Your task to perform on an android device: change the clock style Image 0: 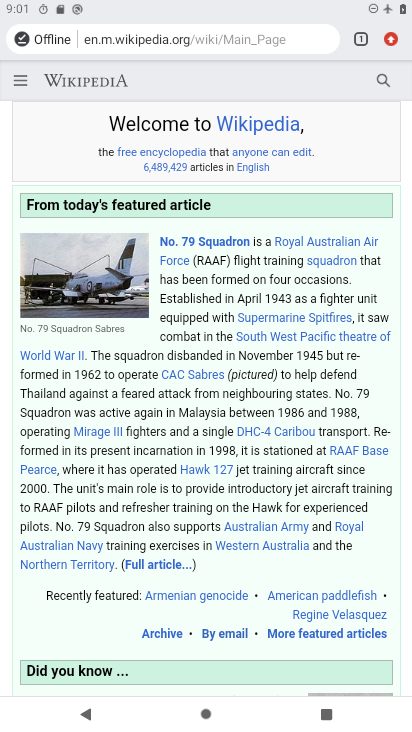
Step 0: press home button
Your task to perform on an android device: change the clock style Image 1: 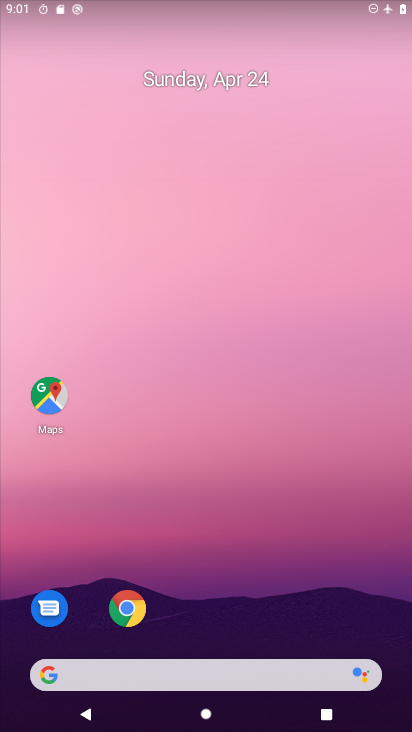
Step 1: drag from (318, 551) to (330, 11)
Your task to perform on an android device: change the clock style Image 2: 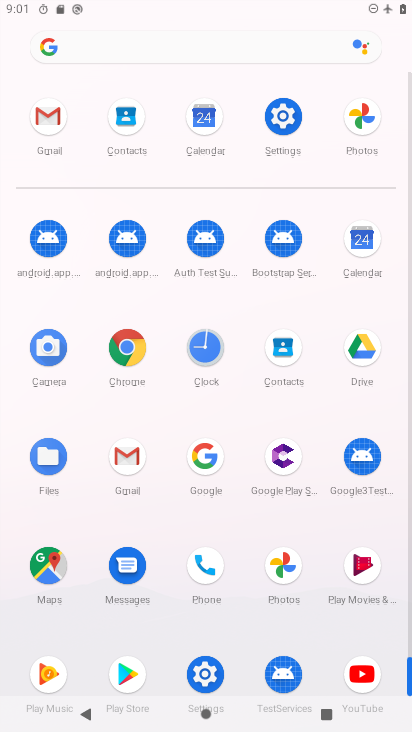
Step 2: click (202, 344)
Your task to perform on an android device: change the clock style Image 3: 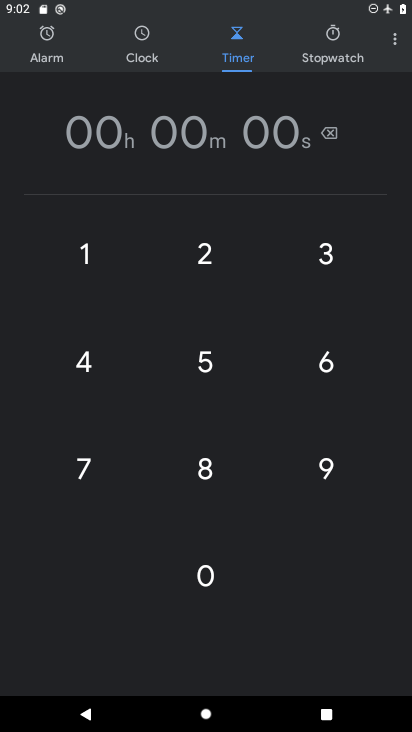
Step 3: click (396, 42)
Your task to perform on an android device: change the clock style Image 4: 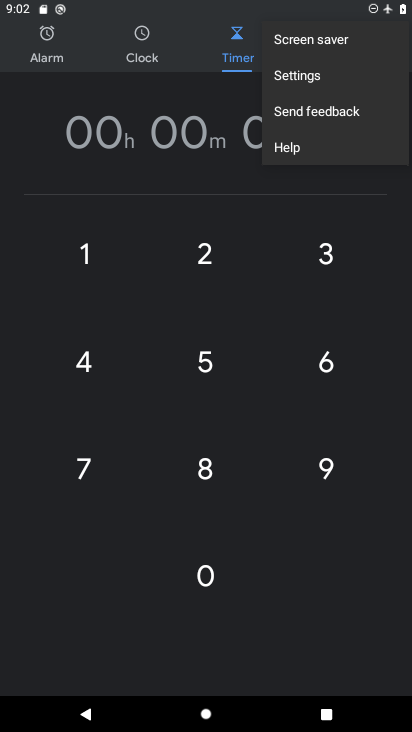
Step 4: click (344, 74)
Your task to perform on an android device: change the clock style Image 5: 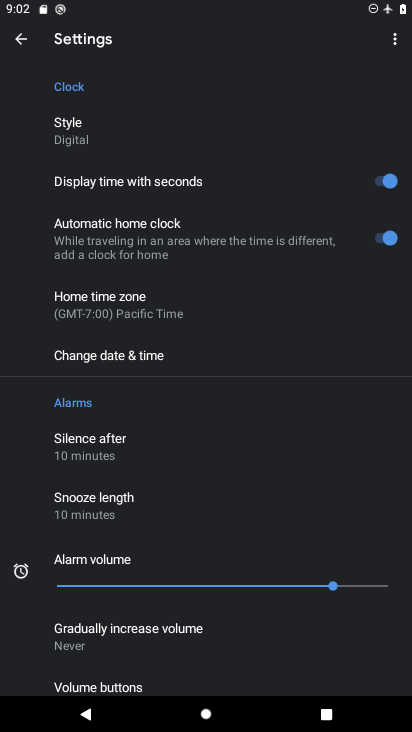
Step 5: click (229, 132)
Your task to perform on an android device: change the clock style Image 6: 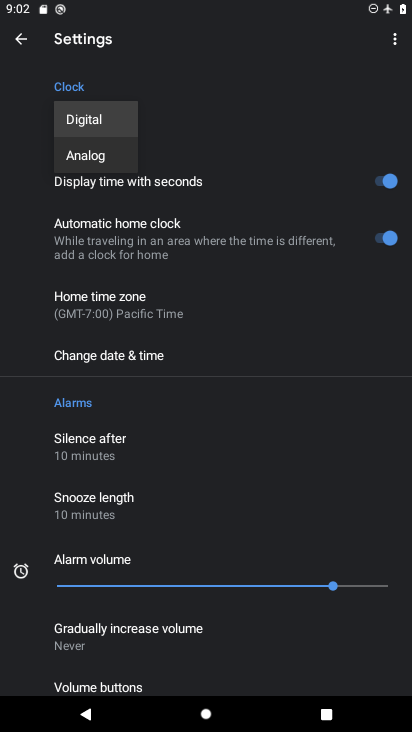
Step 6: click (121, 162)
Your task to perform on an android device: change the clock style Image 7: 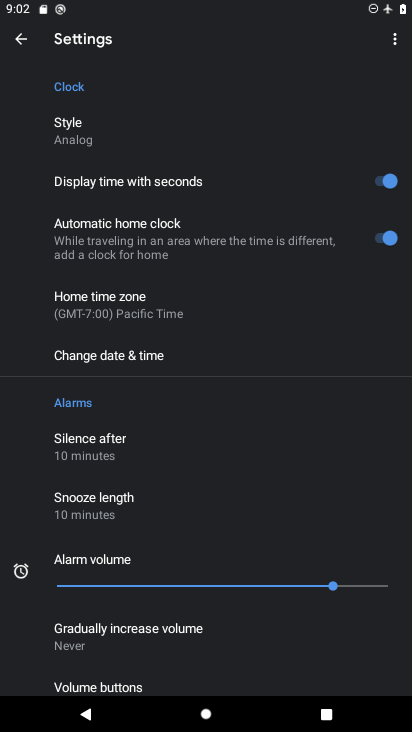
Step 7: click (121, 162)
Your task to perform on an android device: change the clock style Image 8: 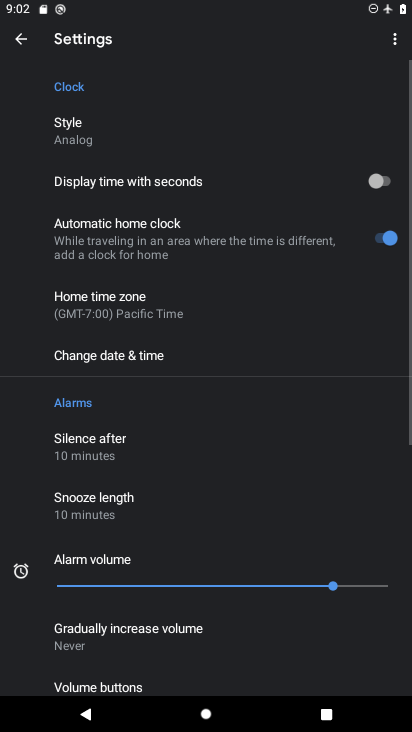
Step 8: click (121, 162)
Your task to perform on an android device: change the clock style Image 9: 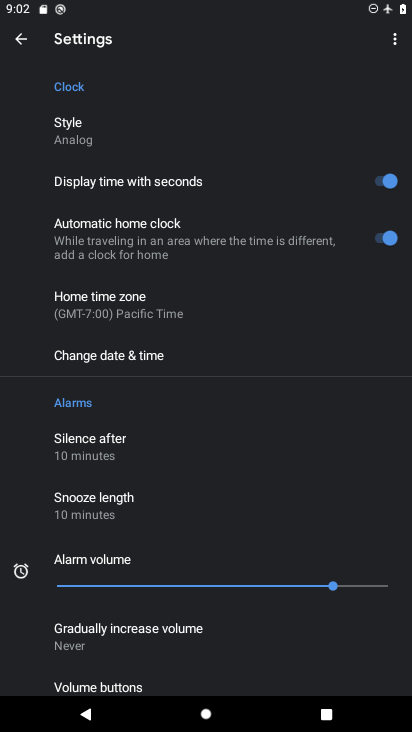
Step 9: click (23, 42)
Your task to perform on an android device: change the clock style Image 10: 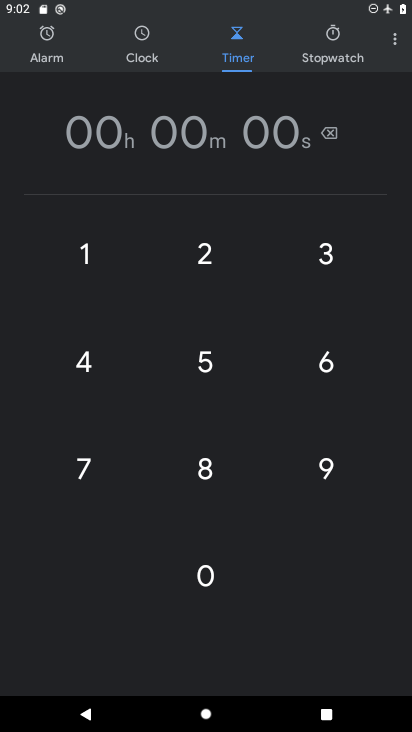
Step 10: click (134, 43)
Your task to perform on an android device: change the clock style Image 11: 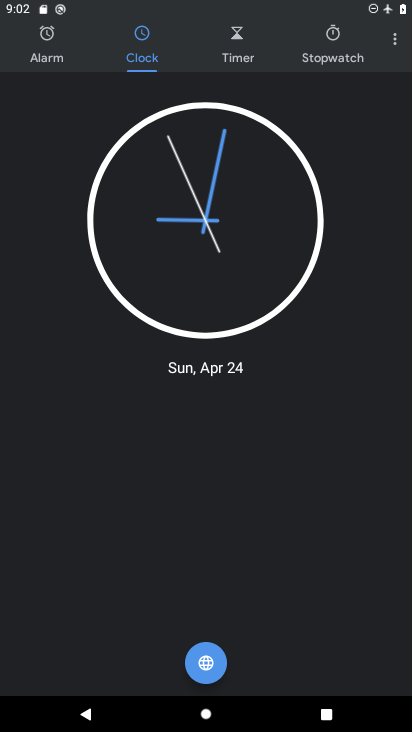
Step 11: task complete